Your task to perform on an android device: Search for seafood restaurants on Google Maps Image 0: 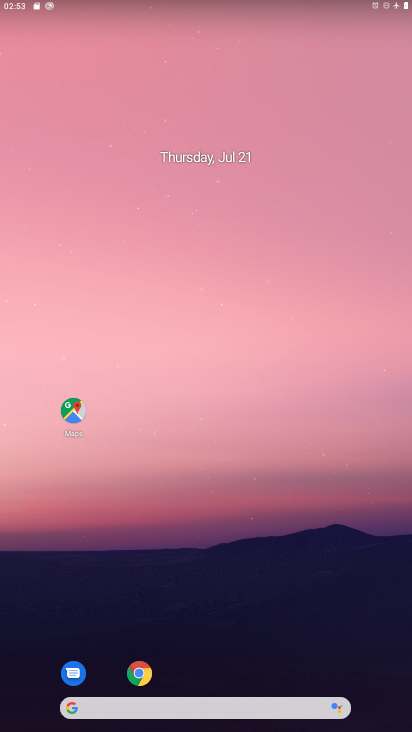
Step 0: drag from (260, 619) to (269, 232)
Your task to perform on an android device: Search for seafood restaurants on Google Maps Image 1: 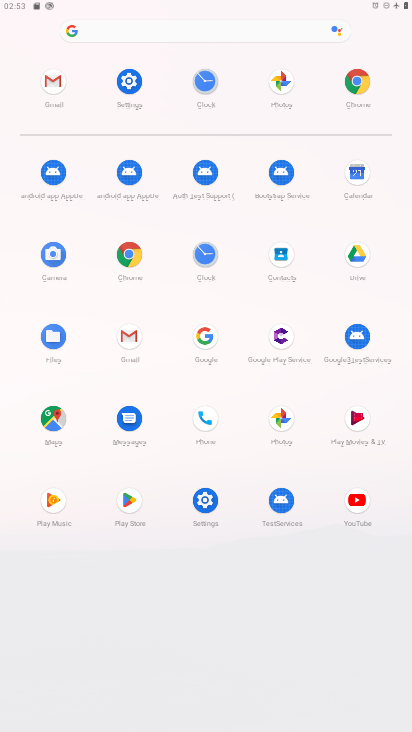
Step 1: click (58, 414)
Your task to perform on an android device: Search for seafood restaurants on Google Maps Image 2: 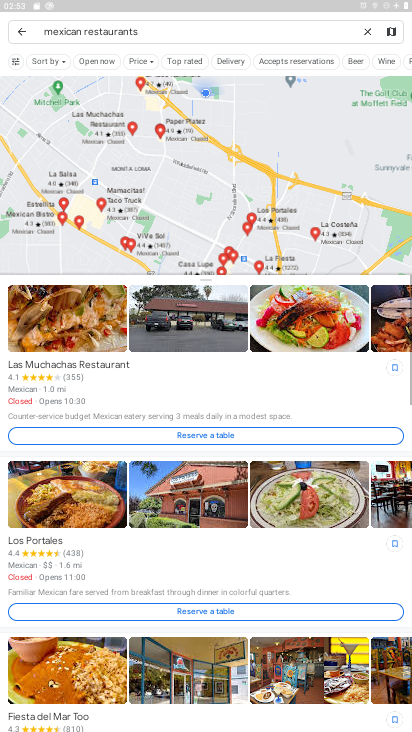
Step 2: click (369, 27)
Your task to perform on an android device: Search for seafood restaurants on Google Maps Image 3: 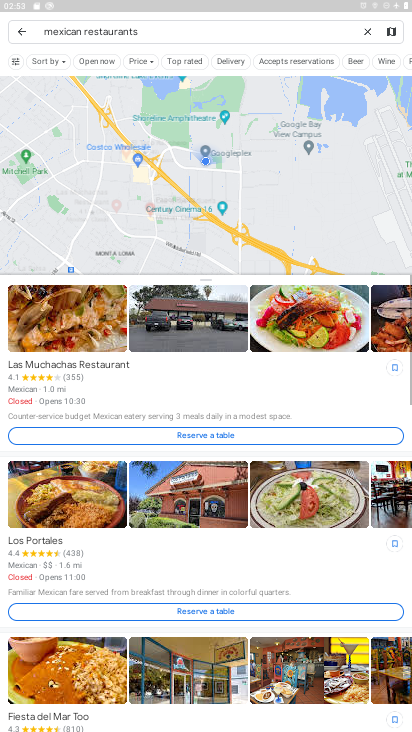
Step 3: click (171, 22)
Your task to perform on an android device: Search for seafood restaurants on Google Maps Image 4: 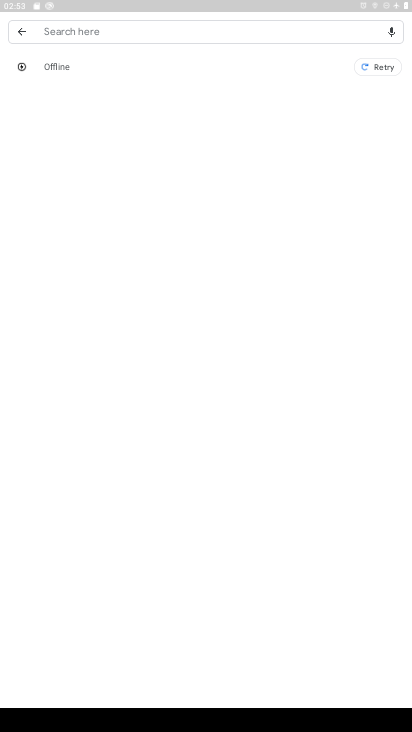
Step 4: click (170, 19)
Your task to perform on an android device: Search for seafood restaurants on Google Maps Image 5: 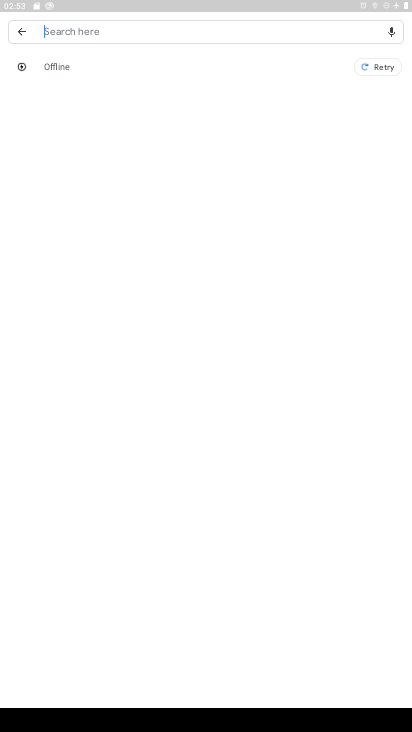
Step 5: type "seafood restaurants  "
Your task to perform on an android device: Search for seafood restaurants on Google Maps Image 6: 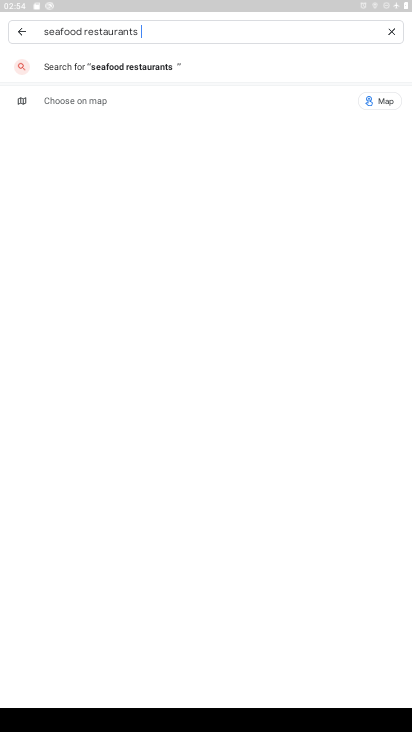
Step 6: click (120, 64)
Your task to perform on an android device: Search for seafood restaurants on Google Maps Image 7: 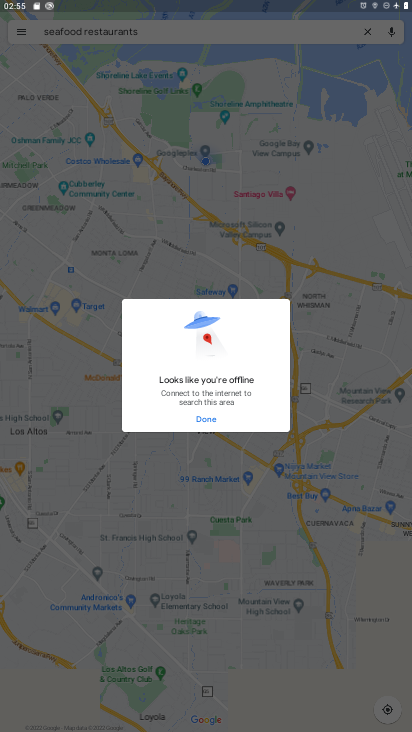
Step 7: task complete